Your task to perform on an android device: refresh tabs in the chrome app Image 0: 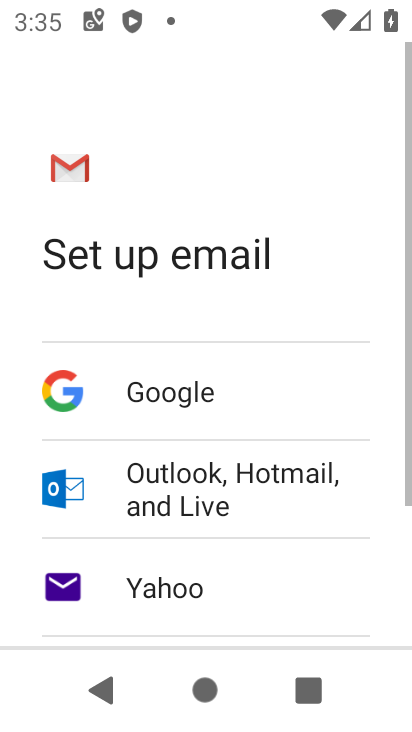
Step 0: press home button
Your task to perform on an android device: refresh tabs in the chrome app Image 1: 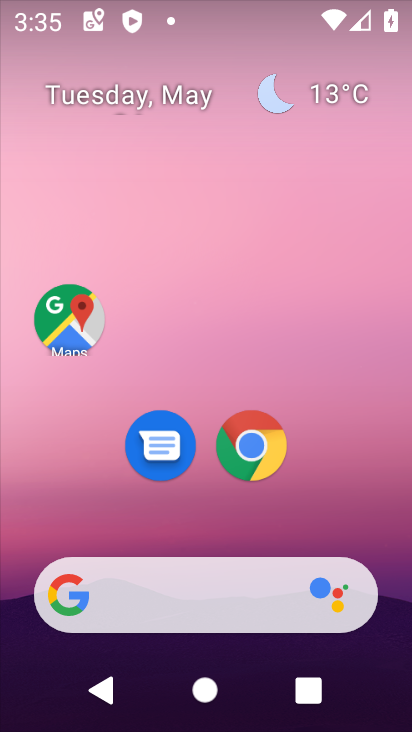
Step 1: click (253, 445)
Your task to perform on an android device: refresh tabs in the chrome app Image 2: 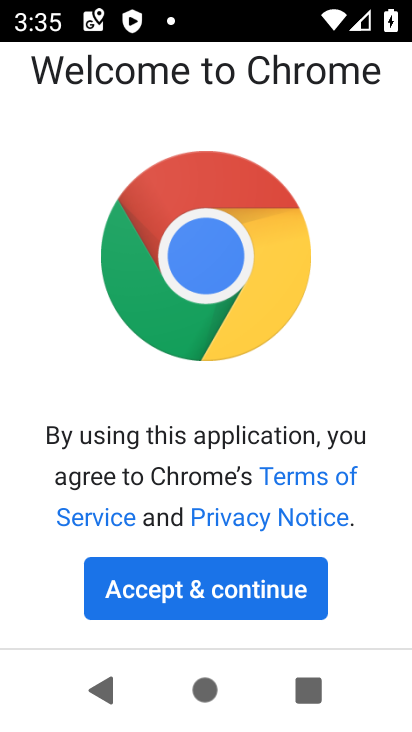
Step 2: click (193, 575)
Your task to perform on an android device: refresh tabs in the chrome app Image 3: 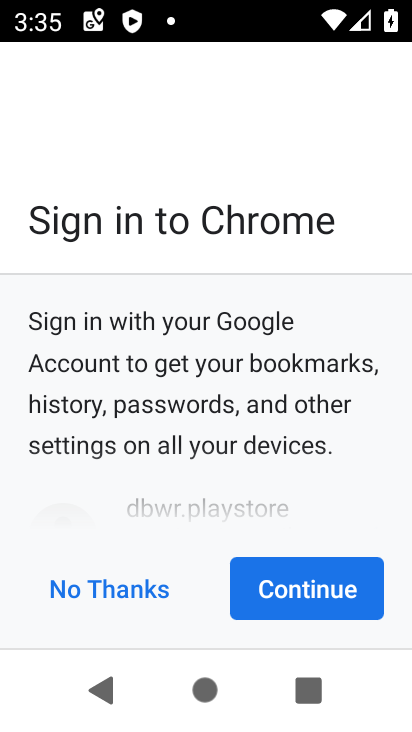
Step 3: click (313, 595)
Your task to perform on an android device: refresh tabs in the chrome app Image 4: 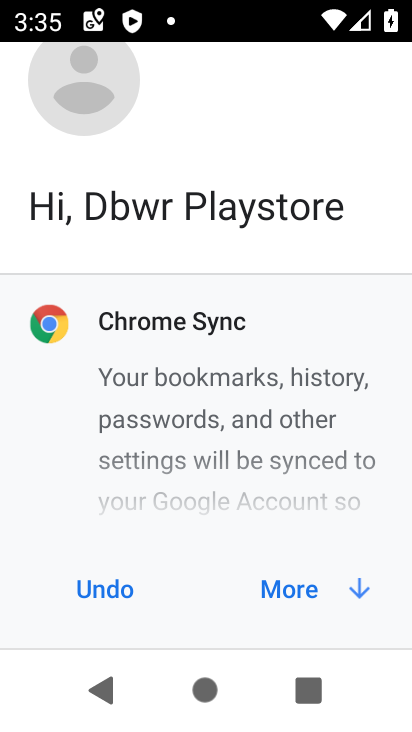
Step 4: click (313, 595)
Your task to perform on an android device: refresh tabs in the chrome app Image 5: 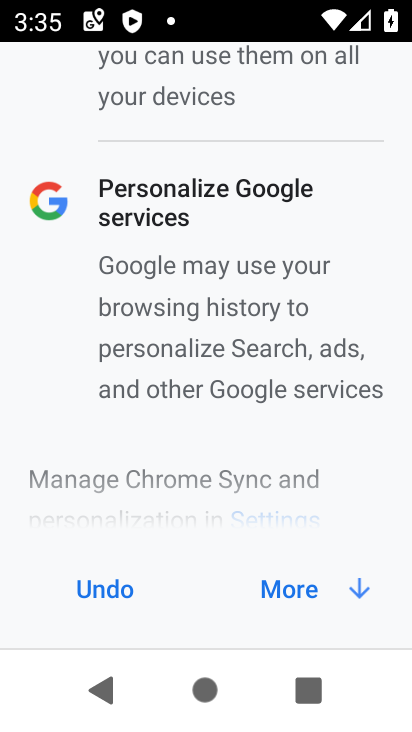
Step 5: click (313, 595)
Your task to perform on an android device: refresh tabs in the chrome app Image 6: 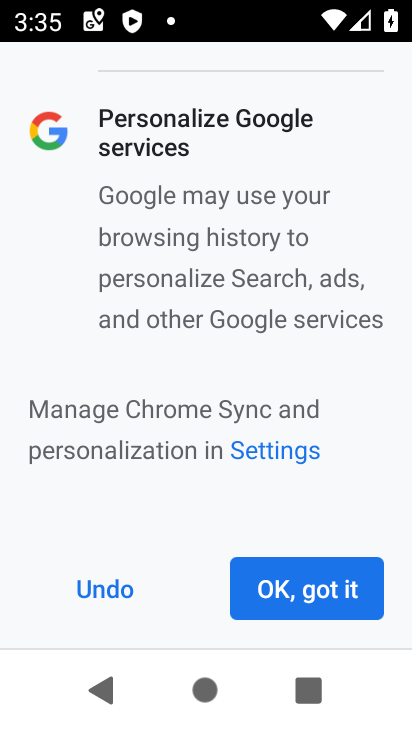
Step 6: click (313, 595)
Your task to perform on an android device: refresh tabs in the chrome app Image 7: 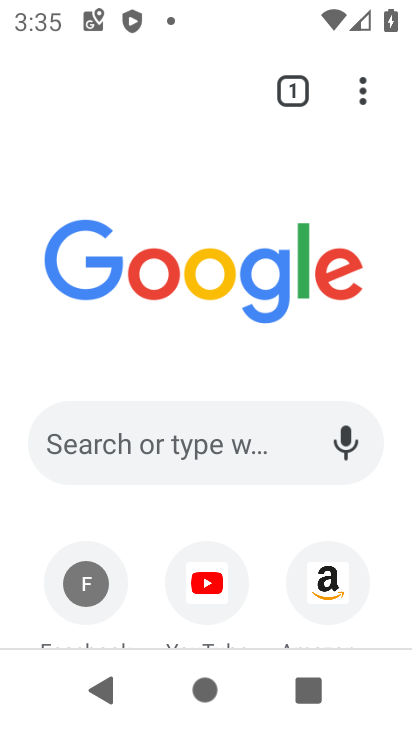
Step 7: click (367, 88)
Your task to perform on an android device: refresh tabs in the chrome app Image 8: 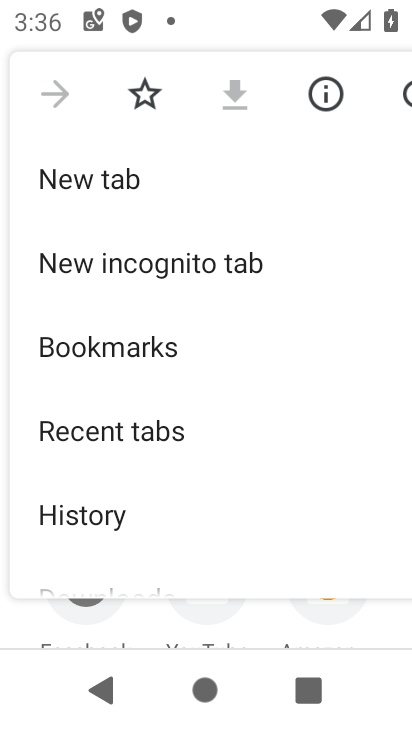
Step 8: click (390, 84)
Your task to perform on an android device: refresh tabs in the chrome app Image 9: 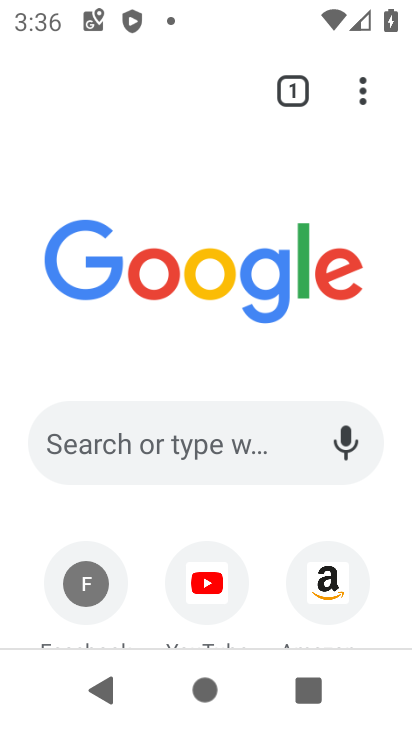
Step 9: task complete